Your task to perform on an android device: toggle location history Image 0: 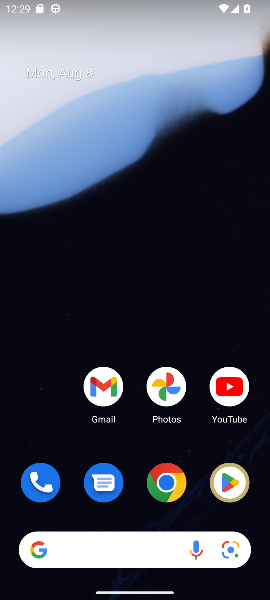
Step 0: drag from (171, 546) to (263, 111)
Your task to perform on an android device: toggle location history Image 1: 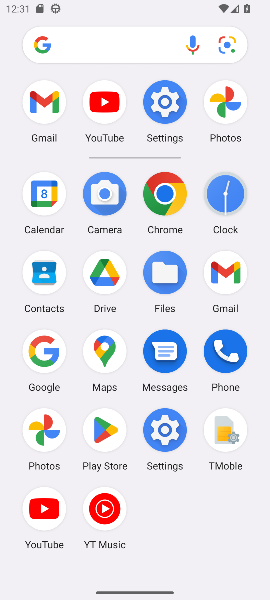
Step 1: click (160, 86)
Your task to perform on an android device: toggle location history Image 2: 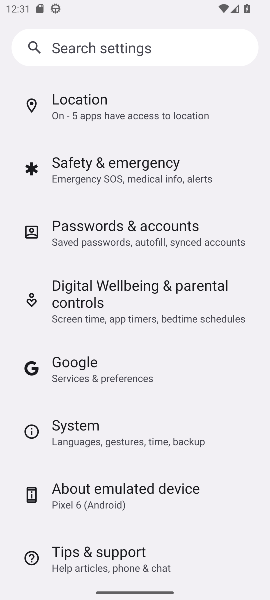
Step 2: click (107, 101)
Your task to perform on an android device: toggle location history Image 3: 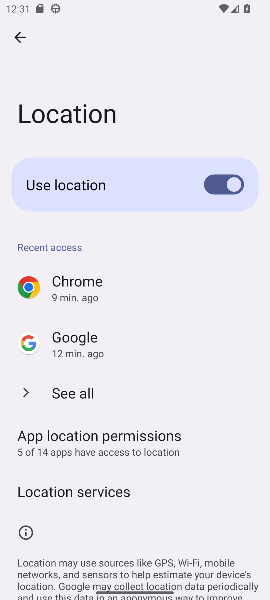
Step 3: click (129, 486)
Your task to perform on an android device: toggle location history Image 4: 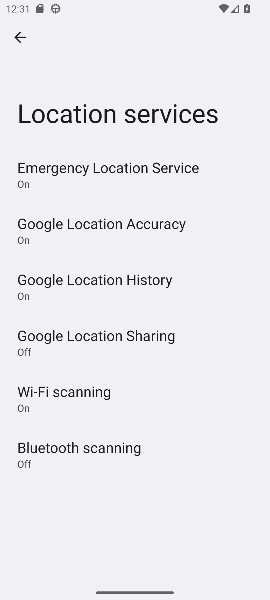
Step 4: click (142, 273)
Your task to perform on an android device: toggle location history Image 5: 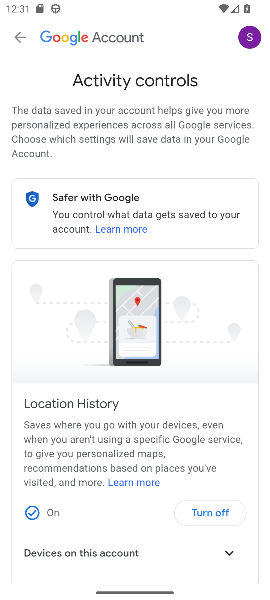
Step 5: click (208, 511)
Your task to perform on an android device: toggle location history Image 6: 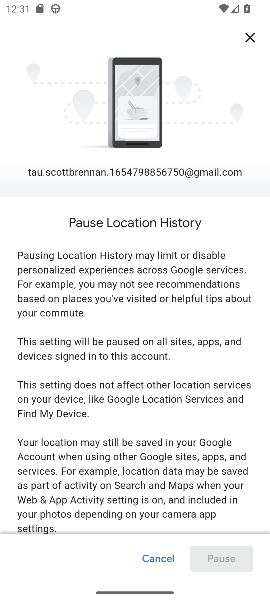
Step 6: drag from (204, 506) to (194, 101)
Your task to perform on an android device: toggle location history Image 7: 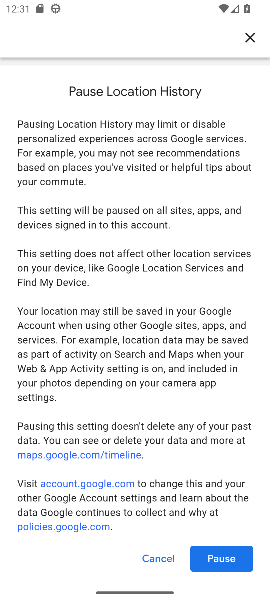
Step 7: click (202, 556)
Your task to perform on an android device: toggle location history Image 8: 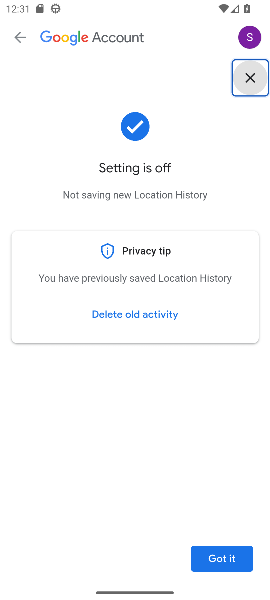
Step 8: task complete